Your task to perform on an android device: turn on showing notifications on the lock screen Image 0: 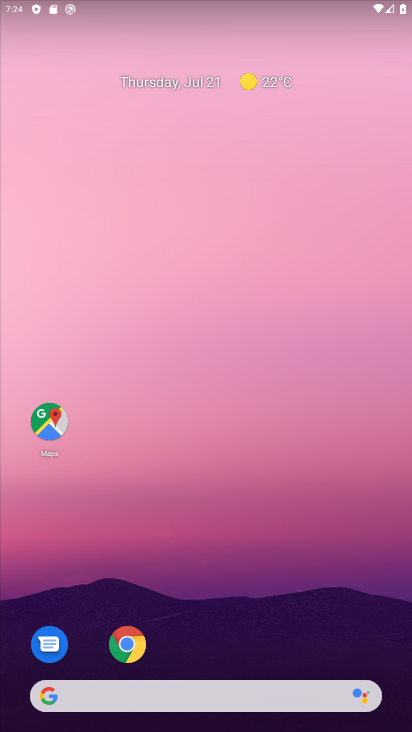
Step 0: drag from (317, 566) to (346, 168)
Your task to perform on an android device: turn on showing notifications on the lock screen Image 1: 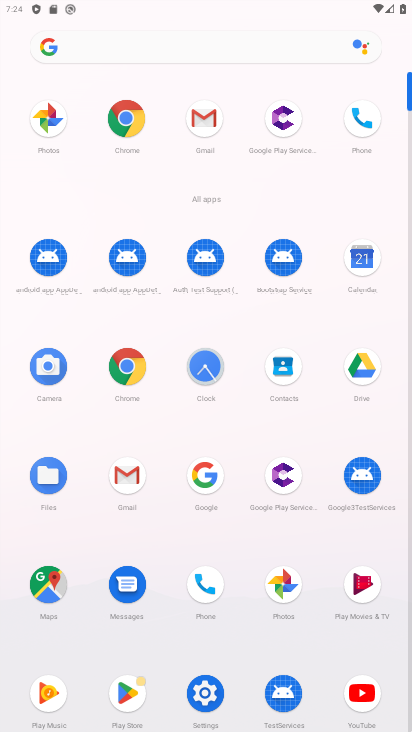
Step 1: click (204, 688)
Your task to perform on an android device: turn on showing notifications on the lock screen Image 2: 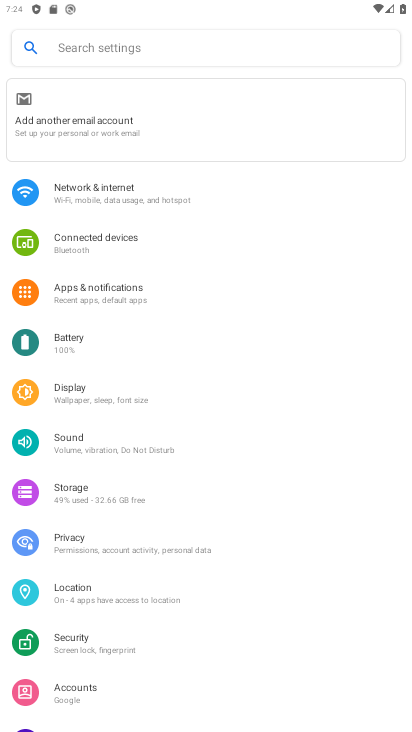
Step 2: drag from (287, 515) to (302, 465)
Your task to perform on an android device: turn on showing notifications on the lock screen Image 3: 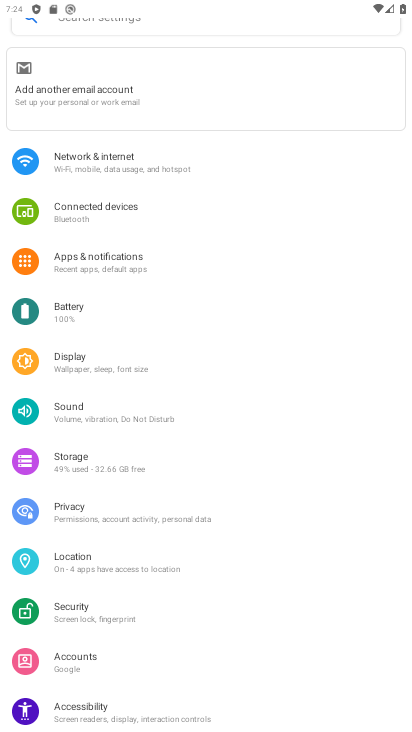
Step 3: drag from (316, 551) to (304, 464)
Your task to perform on an android device: turn on showing notifications on the lock screen Image 4: 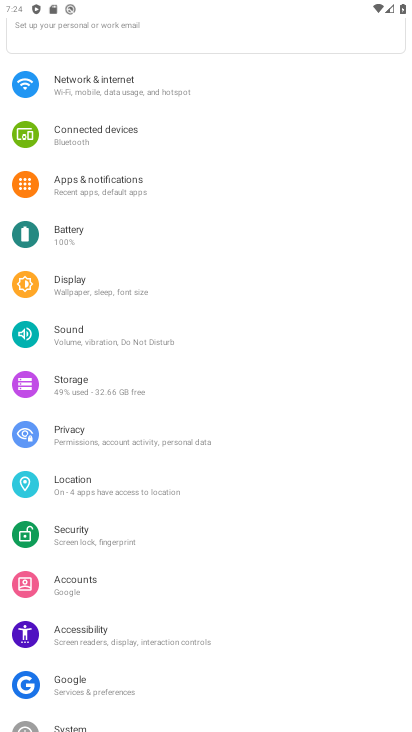
Step 4: drag from (318, 572) to (323, 491)
Your task to perform on an android device: turn on showing notifications on the lock screen Image 5: 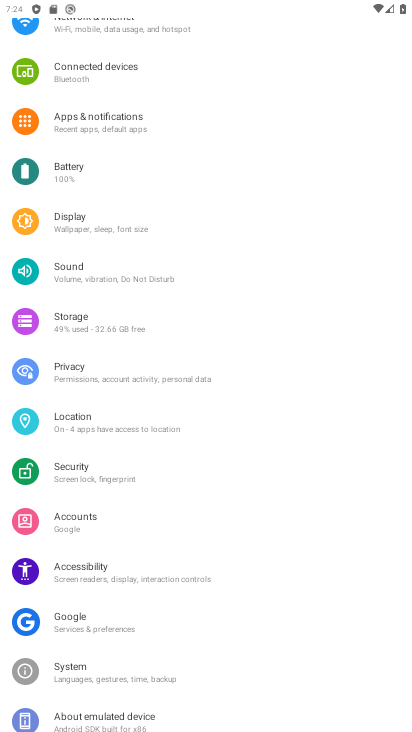
Step 5: drag from (326, 580) to (320, 509)
Your task to perform on an android device: turn on showing notifications on the lock screen Image 6: 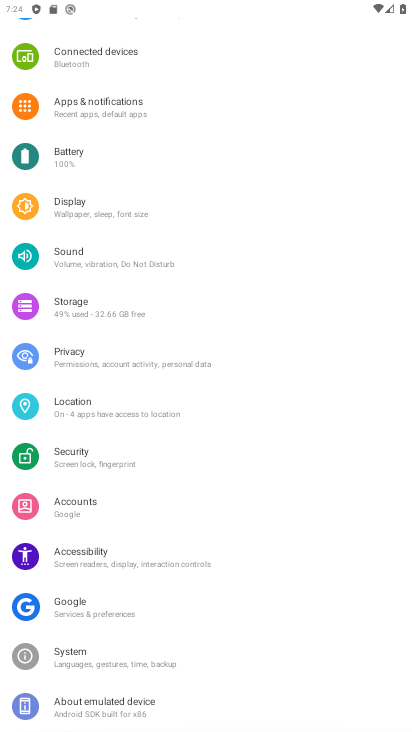
Step 6: drag from (320, 471) to (314, 530)
Your task to perform on an android device: turn on showing notifications on the lock screen Image 7: 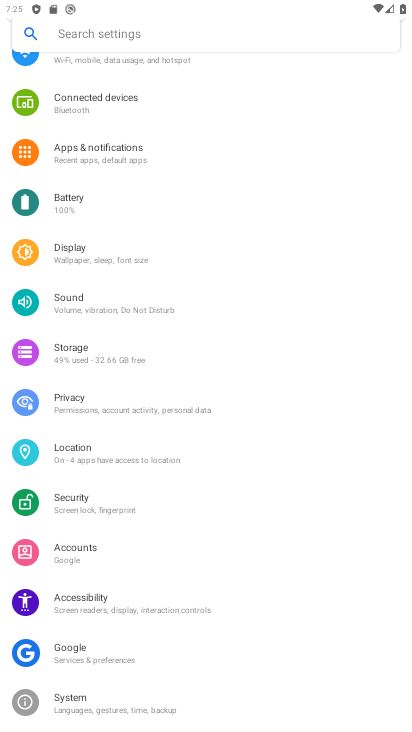
Step 7: drag from (307, 408) to (310, 455)
Your task to perform on an android device: turn on showing notifications on the lock screen Image 8: 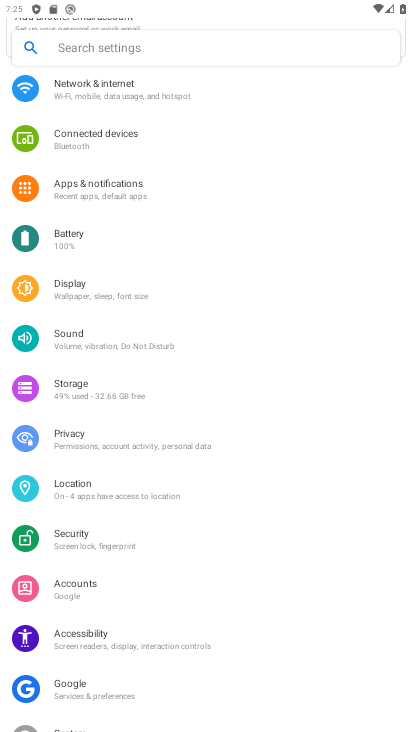
Step 8: drag from (312, 388) to (314, 448)
Your task to perform on an android device: turn on showing notifications on the lock screen Image 9: 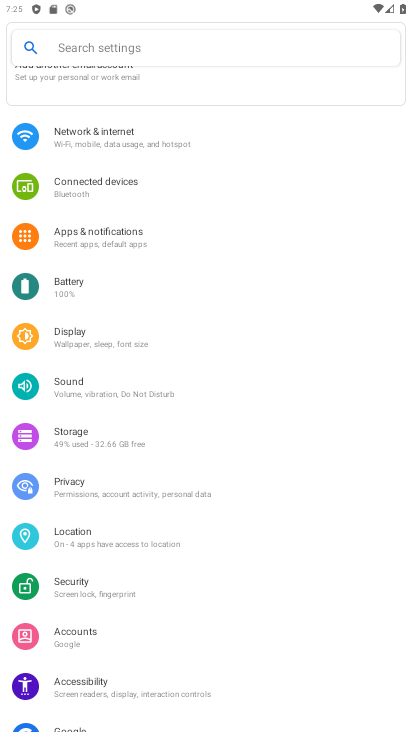
Step 9: drag from (310, 397) to (311, 474)
Your task to perform on an android device: turn on showing notifications on the lock screen Image 10: 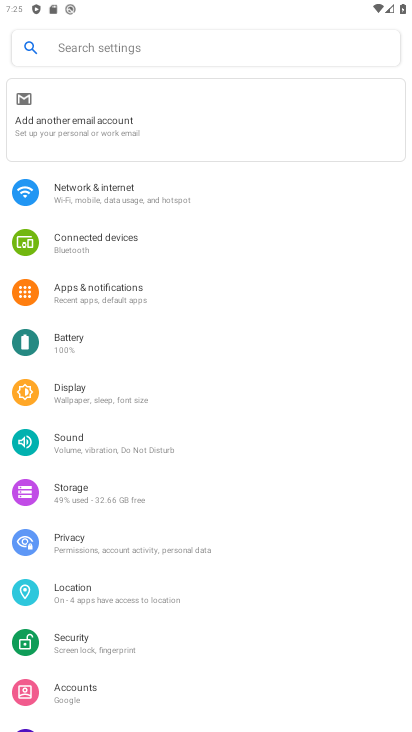
Step 10: drag from (311, 376) to (312, 467)
Your task to perform on an android device: turn on showing notifications on the lock screen Image 11: 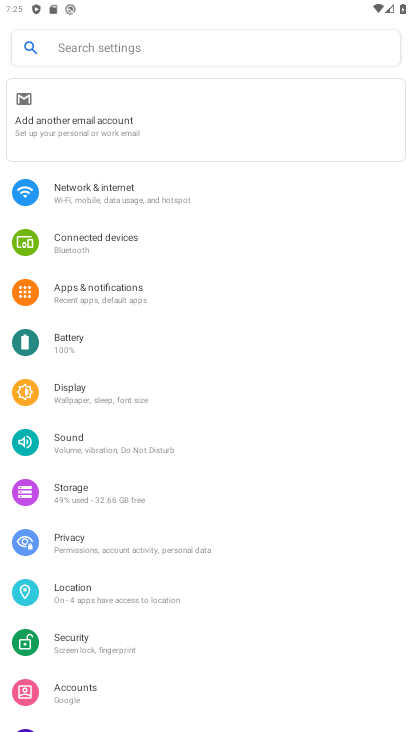
Step 11: click (209, 291)
Your task to perform on an android device: turn on showing notifications on the lock screen Image 12: 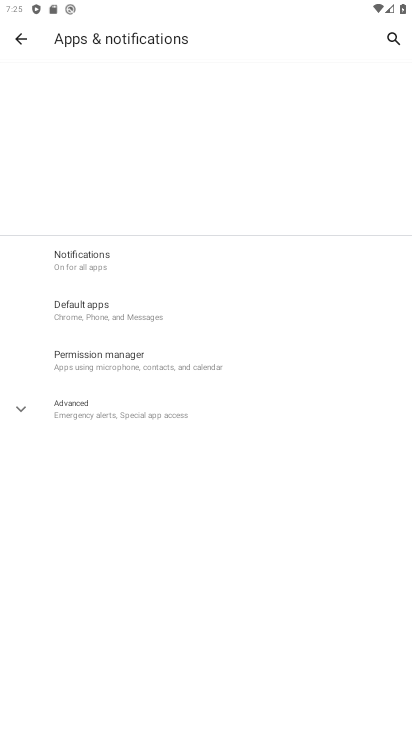
Step 12: click (182, 264)
Your task to perform on an android device: turn on showing notifications on the lock screen Image 13: 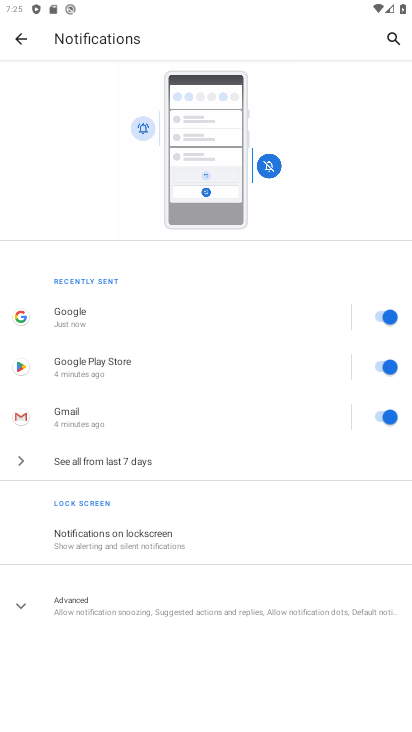
Step 13: click (224, 515)
Your task to perform on an android device: turn on showing notifications on the lock screen Image 14: 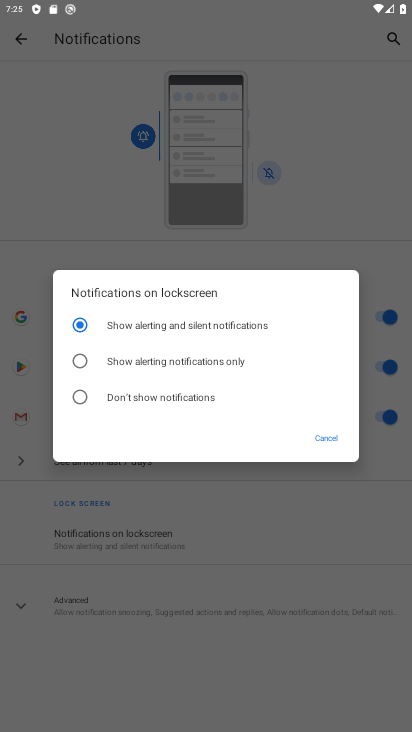
Step 14: task complete